Your task to perform on an android device: delete browsing data in the chrome app Image 0: 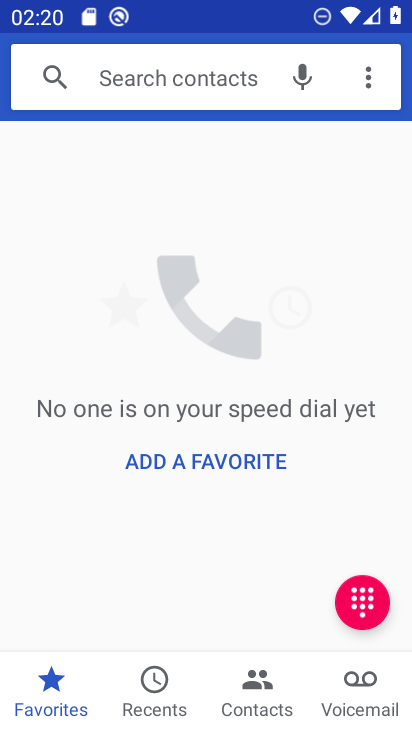
Step 0: press home button
Your task to perform on an android device: delete browsing data in the chrome app Image 1: 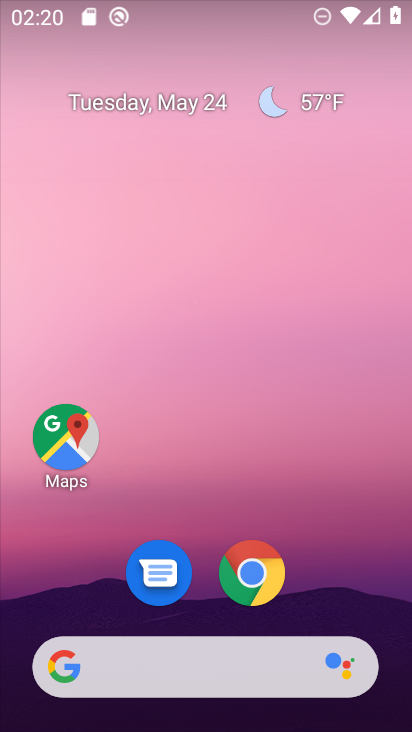
Step 1: drag from (342, 600) to (352, 164)
Your task to perform on an android device: delete browsing data in the chrome app Image 2: 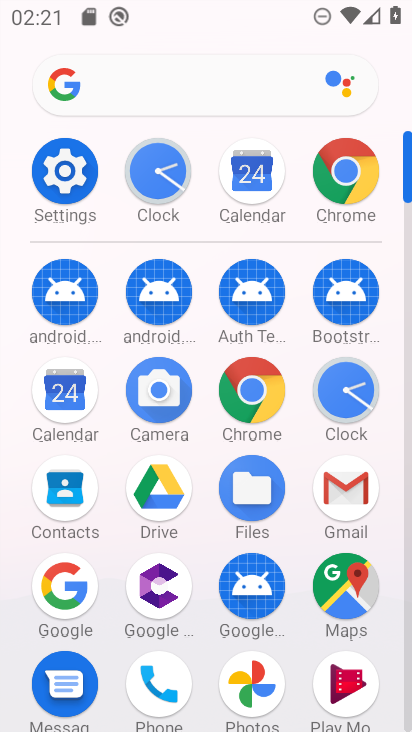
Step 2: click (238, 390)
Your task to perform on an android device: delete browsing data in the chrome app Image 3: 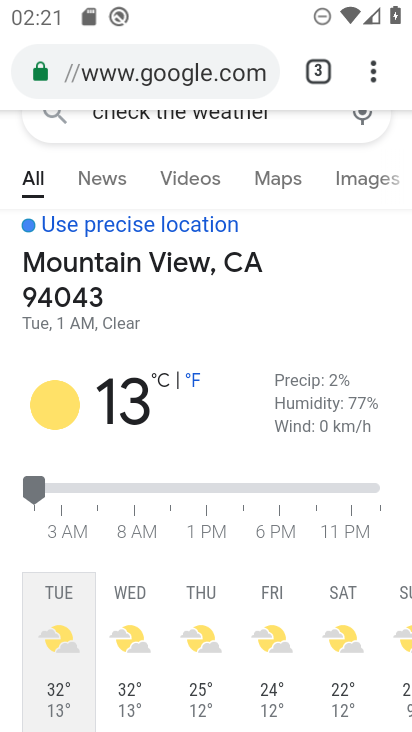
Step 3: click (367, 68)
Your task to perform on an android device: delete browsing data in the chrome app Image 4: 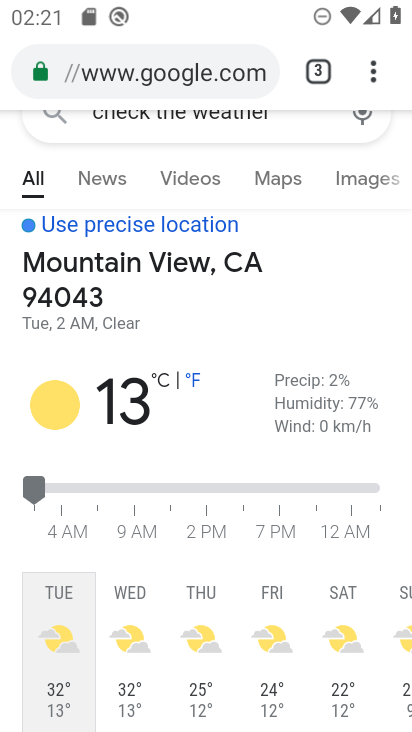
Step 4: drag from (364, 91) to (202, 400)
Your task to perform on an android device: delete browsing data in the chrome app Image 5: 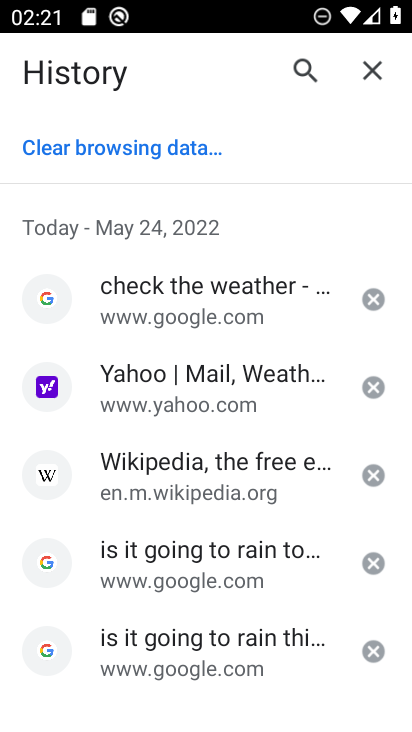
Step 5: click (161, 149)
Your task to perform on an android device: delete browsing data in the chrome app Image 6: 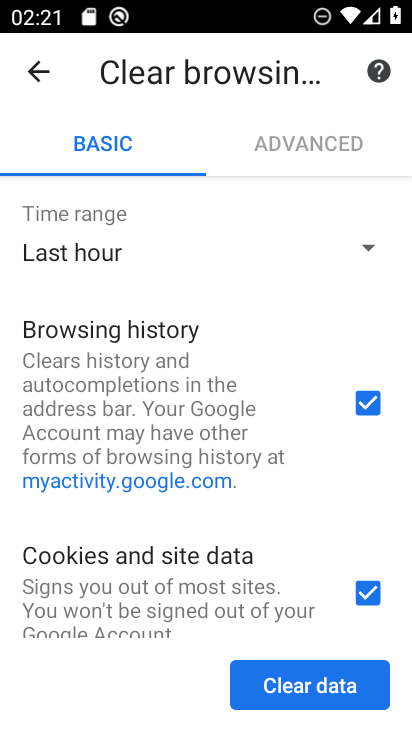
Step 6: click (296, 678)
Your task to perform on an android device: delete browsing data in the chrome app Image 7: 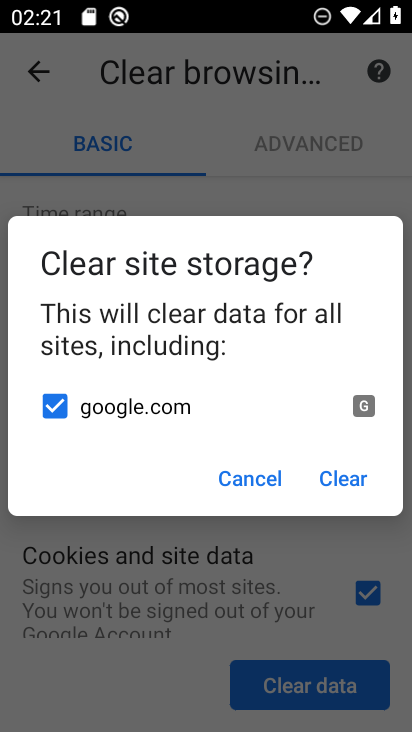
Step 7: click (332, 480)
Your task to perform on an android device: delete browsing data in the chrome app Image 8: 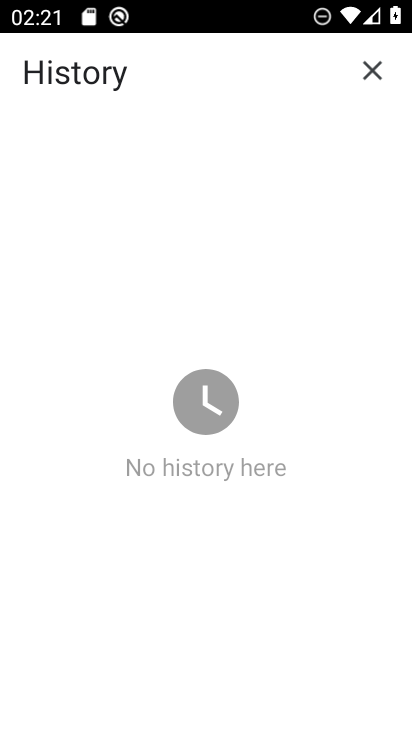
Step 8: task complete